Your task to perform on an android device: Do I have any events this weekend? Image 0: 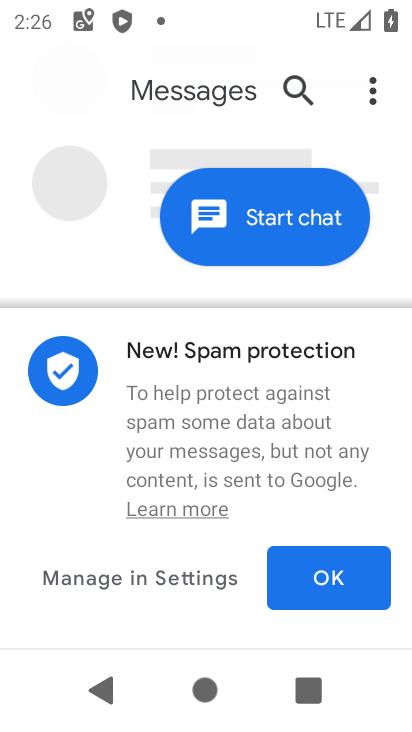
Step 0: press home button
Your task to perform on an android device: Do I have any events this weekend? Image 1: 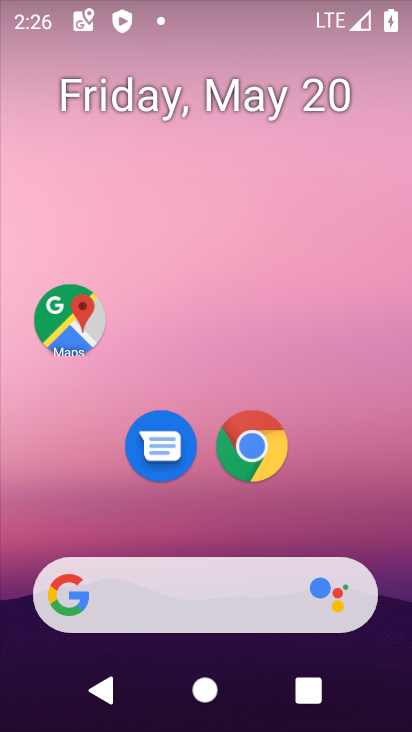
Step 1: drag from (377, 462) to (376, 4)
Your task to perform on an android device: Do I have any events this weekend? Image 2: 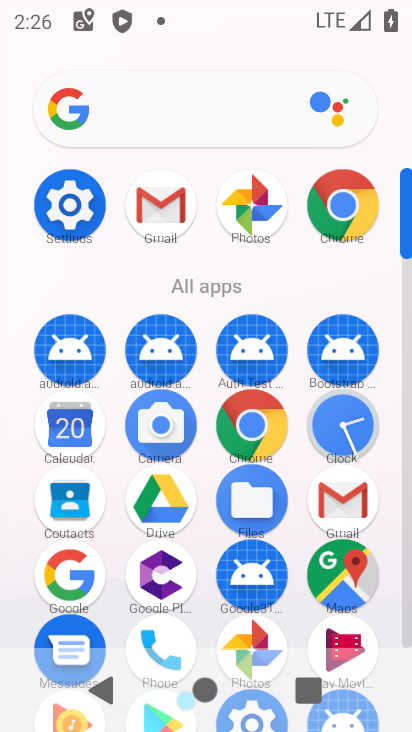
Step 2: click (69, 435)
Your task to perform on an android device: Do I have any events this weekend? Image 3: 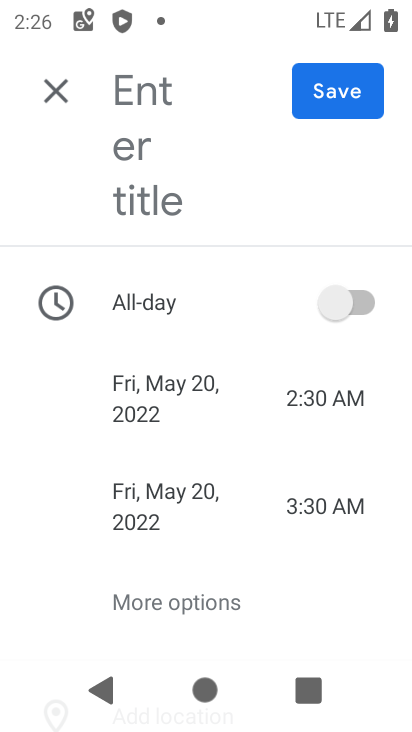
Step 3: click (53, 85)
Your task to perform on an android device: Do I have any events this weekend? Image 4: 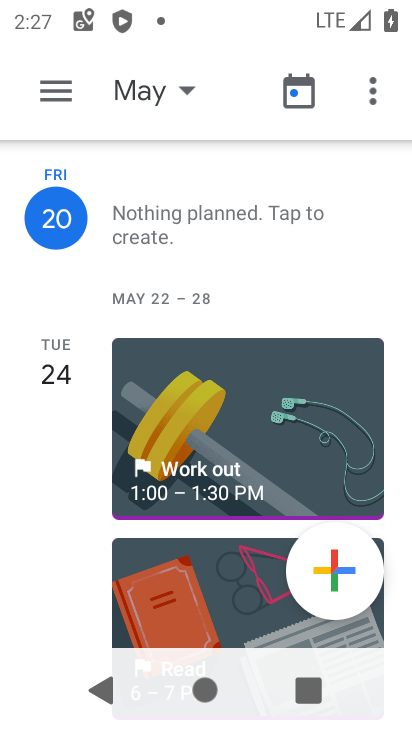
Step 4: click (59, 94)
Your task to perform on an android device: Do I have any events this weekend? Image 5: 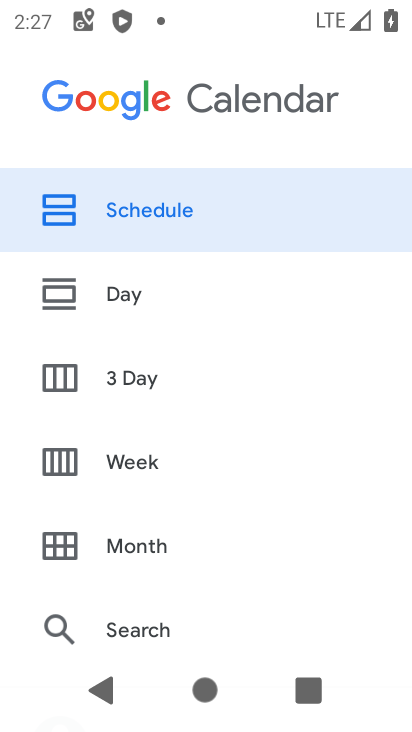
Step 5: click (82, 454)
Your task to perform on an android device: Do I have any events this weekend? Image 6: 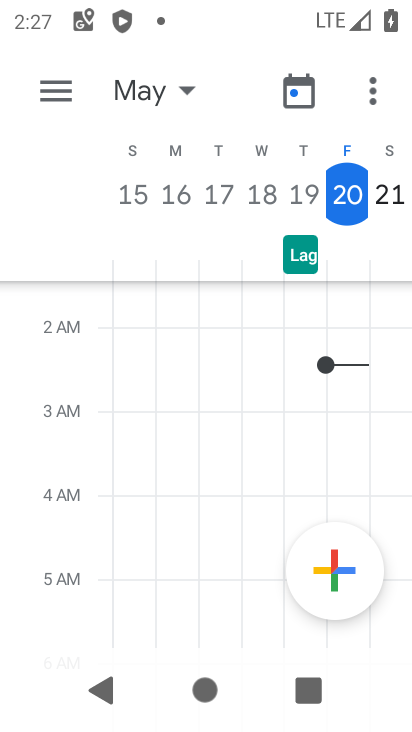
Step 6: click (49, 94)
Your task to perform on an android device: Do I have any events this weekend? Image 7: 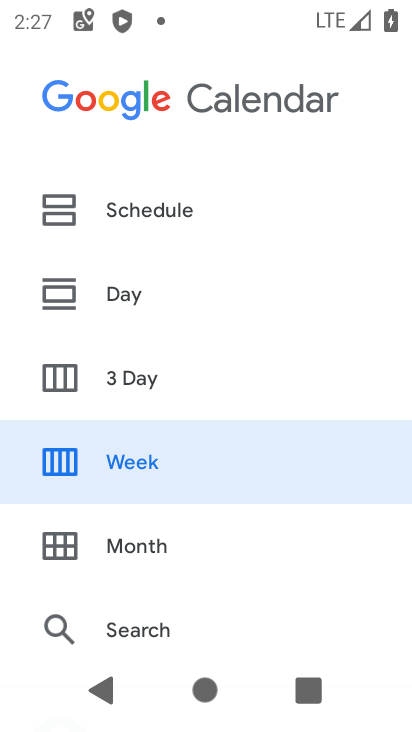
Step 7: drag from (68, 497) to (92, 77)
Your task to perform on an android device: Do I have any events this weekend? Image 8: 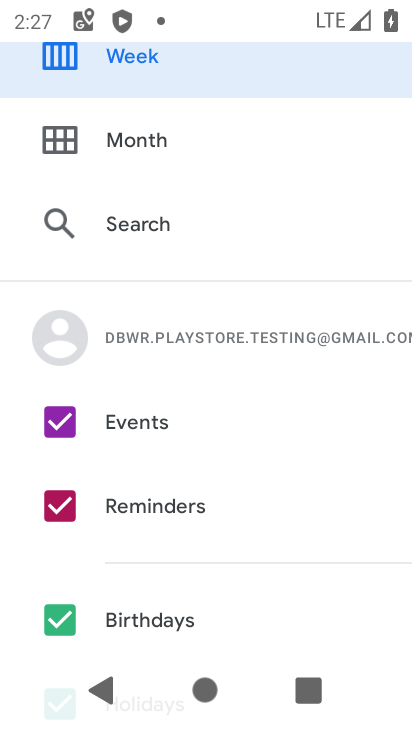
Step 8: click (66, 494)
Your task to perform on an android device: Do I have any events this weekend? Image 9: 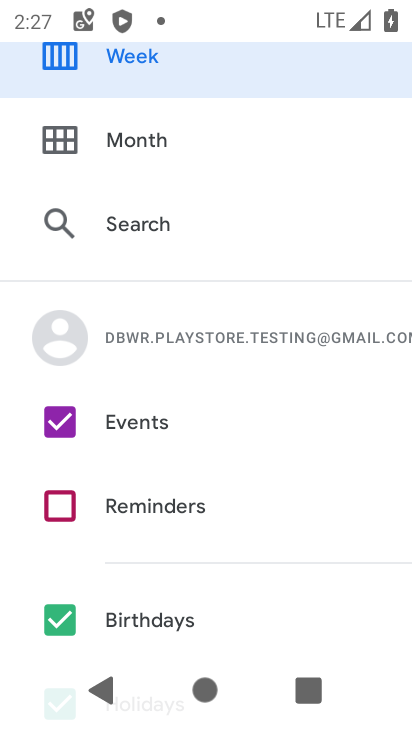
Step 9: click (64, 603)
Your task to perform on an android device: Do I have any events this weekend? Image 10: 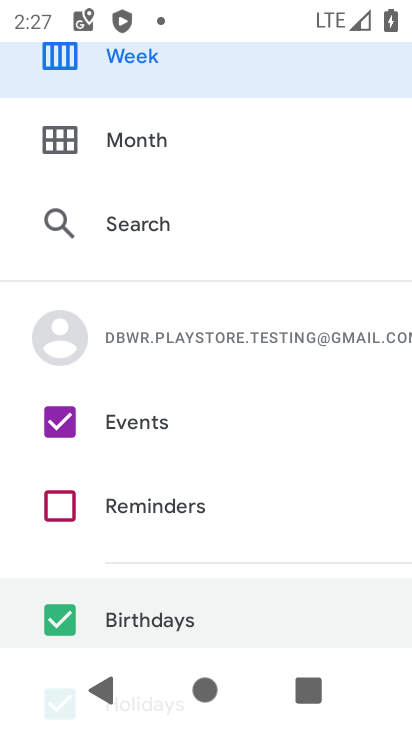
Step 10: drag from (157, 575) to (167, 295)
Your task to perform on an android device: Do I have any events this weekend? Image 11: 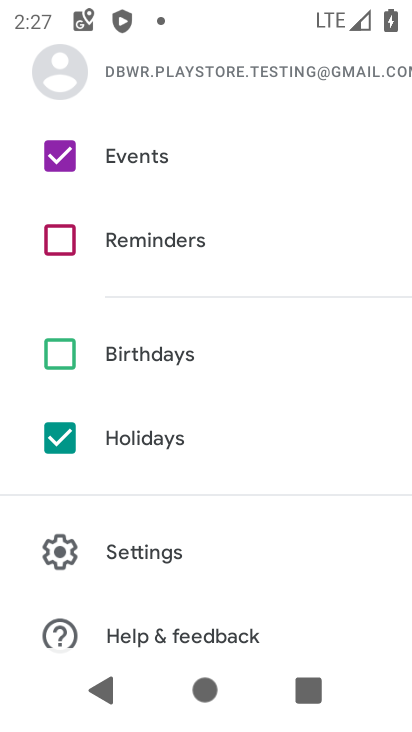
Step 11: click (63, 433)
Your task to perform on an android device: Do I have any events this weekend? Image 12: 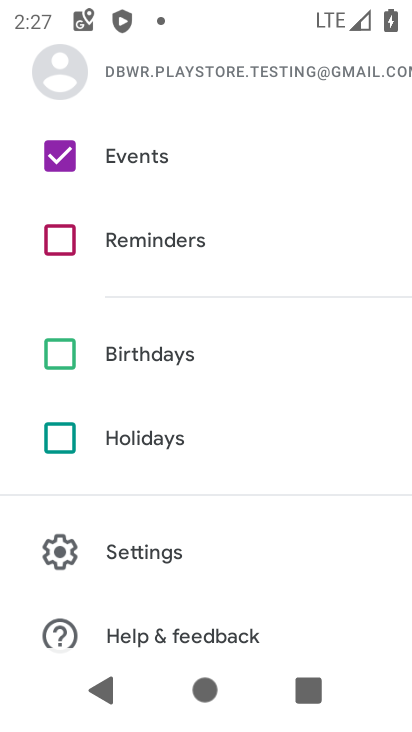
Step 12: drag from (216, 253) to (152, 621)
Your task to perform on an android device: Do I have any events this weekend? Image 13: 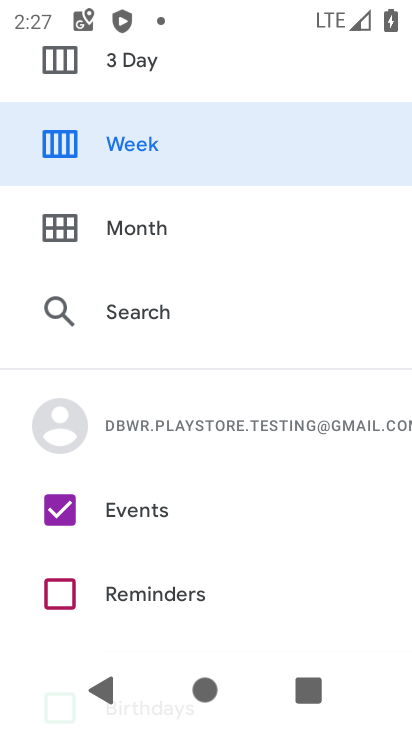
Step 13: click (130, 148)
Your task to perform on an android device: Do I have any events this weekend? Image 14: 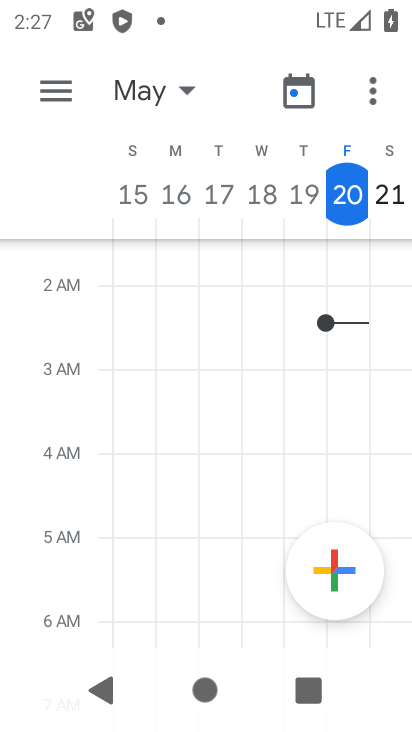
Step 14: task complete